Your task to perform on an android device: What is the recent news? Image 0: 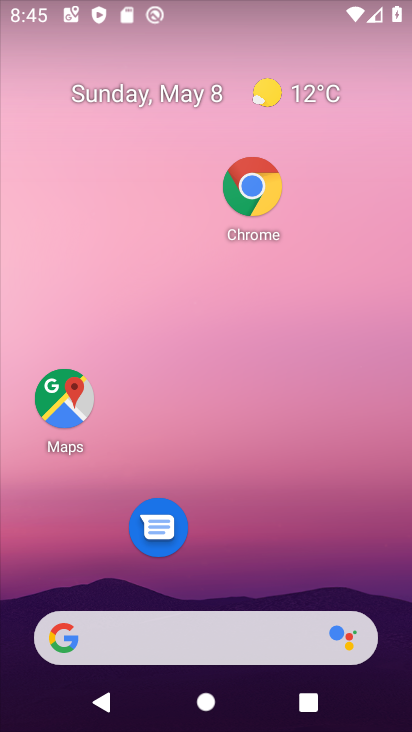
Step 0: drag from (304, 529) to (334, 306)
Your task to perform on an android device: What is the recent news? Image 1: 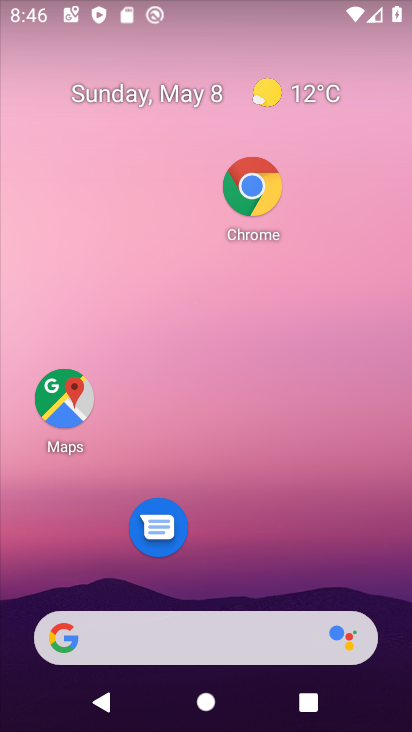
Step 1: drag from (270, 556) to (278, 288)
Your task to perform on an android device: What is the recent news? Image 2: 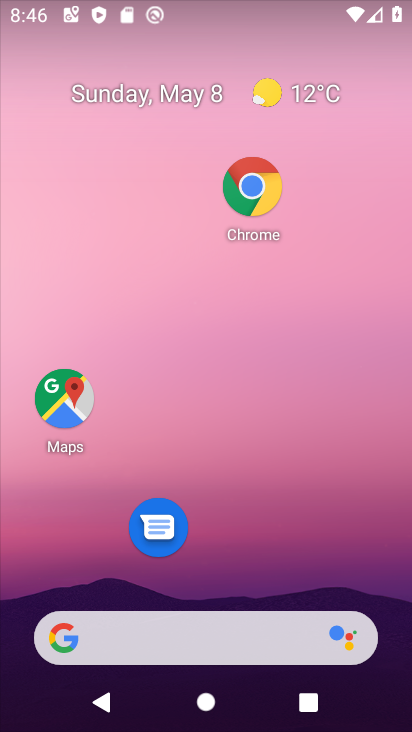
Step 2: drag from (246, 558) to (299, 172)
Your task to perform on an android device: What is the recent news? Image 3: 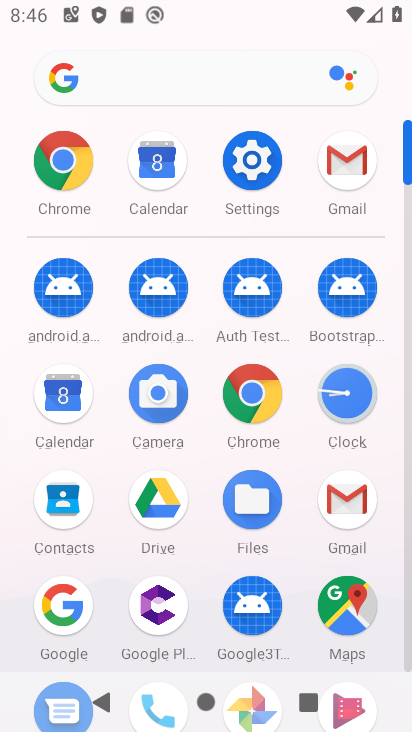
Step 3: click (246, 378)
Your task to perform on an android device: What is the recent news? Image 4: 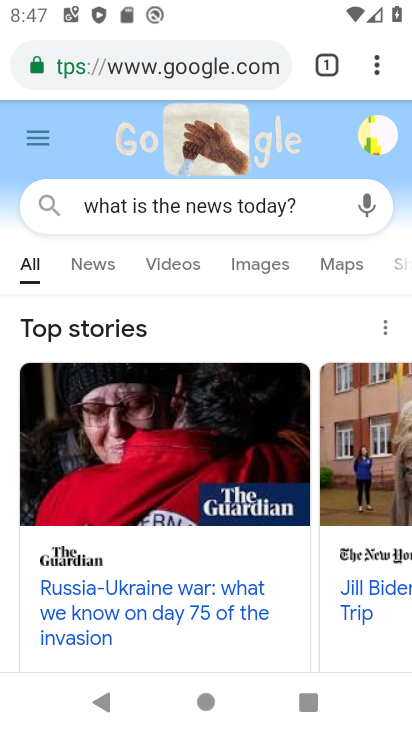
Step 4: task complete